Your task to perform on an android device: turn on airplane mode Image 0: 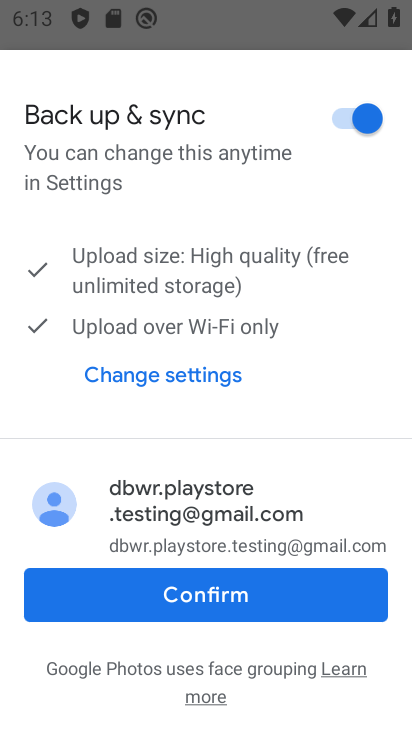
Step 0: press home button
Your task to perform on an android device: turn on airplane mode Image 1: 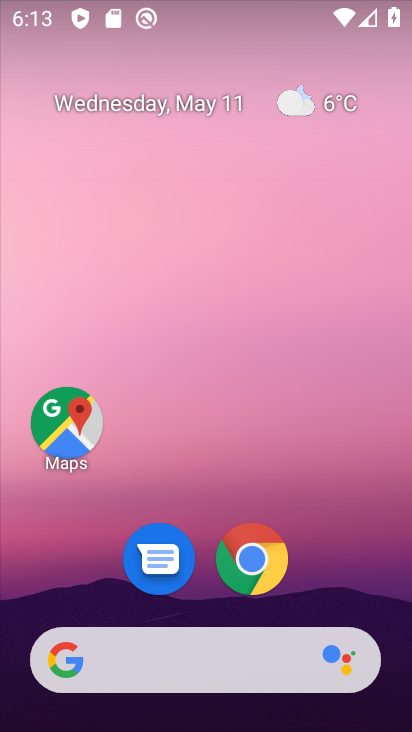
Step 1: drag from (291, 467) to (193, 300)
Your task to perform on an android device: turn on airplane mode Image 2: 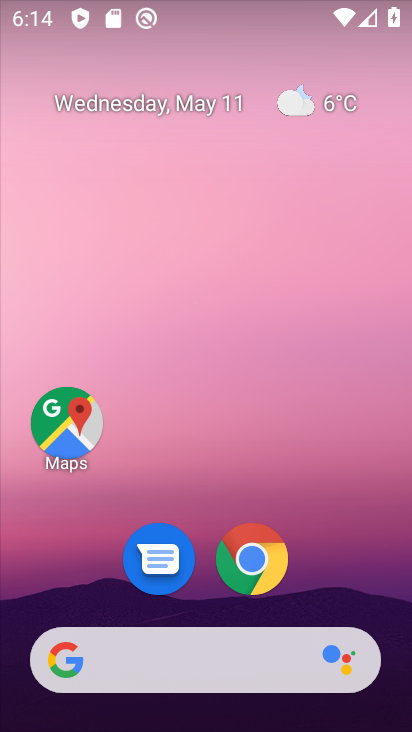
Step 2: drag from (231, 14) to (15, 455)
Your task to perform on an android device: turn on airplane mode Image 3: 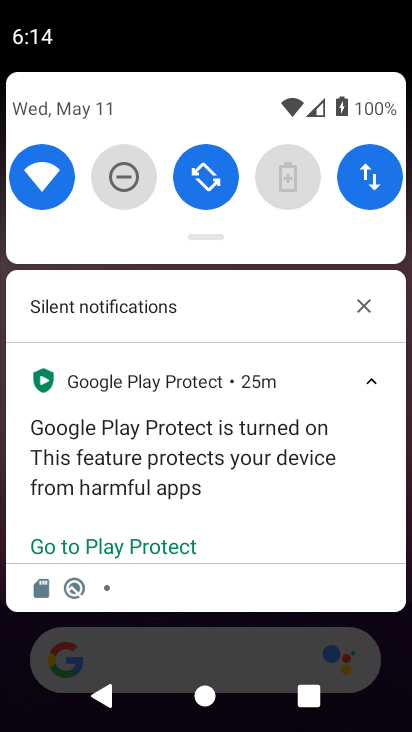
Step 3: drag from (332, 210) to (160, 639)
Your task to perform on an android device: turn on airplane mode Image 4: 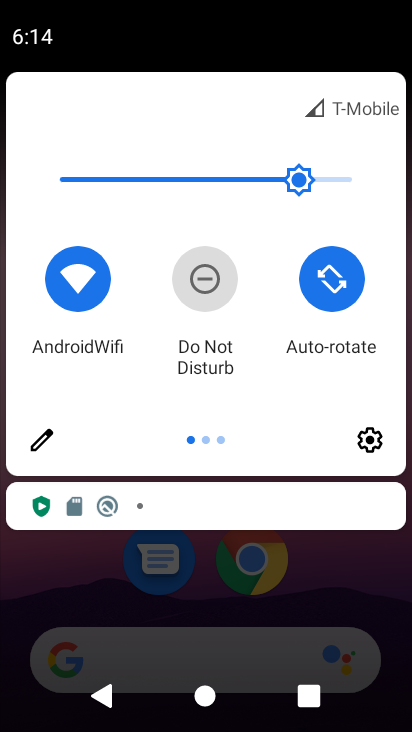
Step 4: drag from (372, 232) to (11, 202)
Your task to perform on an android device: turn on airplane mode Image 5: 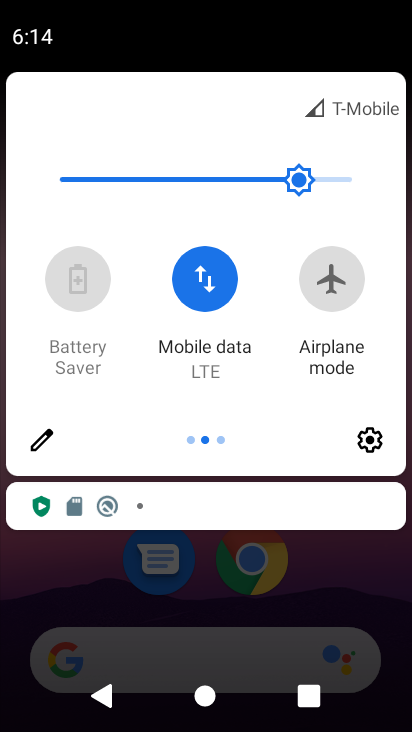
Step 5: click (322, 278)
Your task to perform on an android device: turn on airplane mode Image 6: 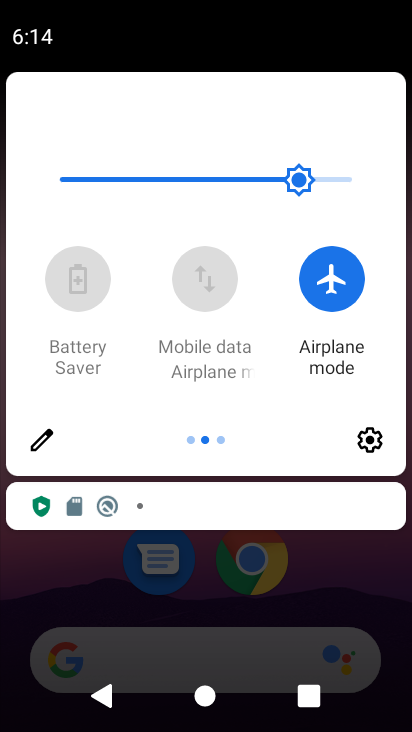
Step 6: task complete